Your task to perform on an android device: turn on notifications settings in the gmail app Image 0: 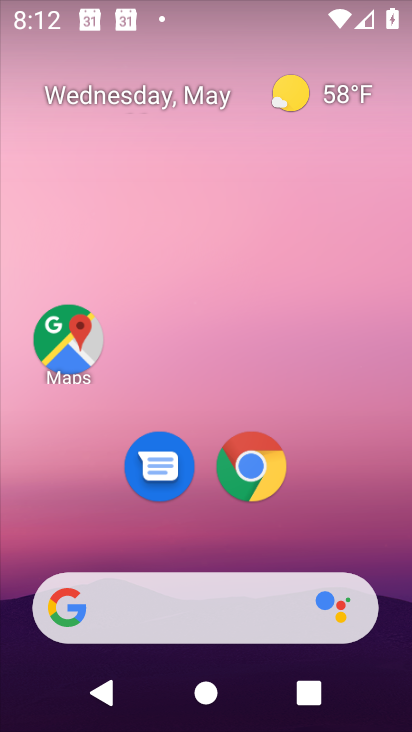
Step 0: drag from (200, 551) to (229, 24)
Your task to perform on an android device: turn on notifications settings in the gmail app Image 1: 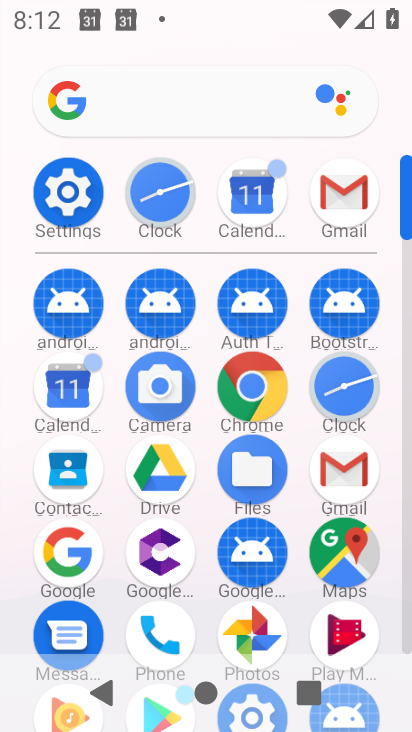
Step 1: click (344, 461)
Your task to perform on an android device: turn on notifications settings in the gmail app Image 2: 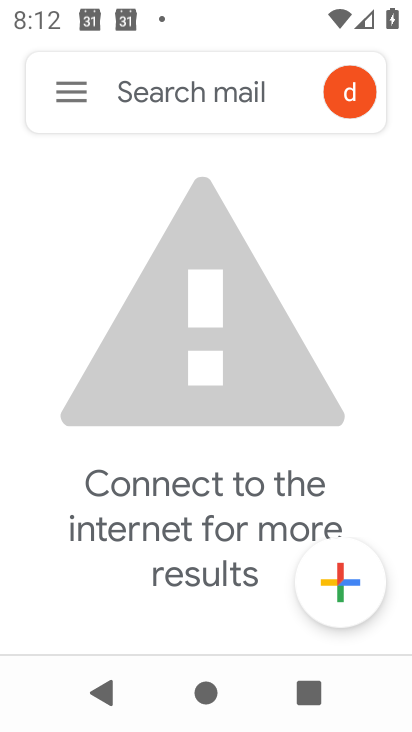
Step 2: click (68, 87)
Your task to perform on an android device: turn on notifications settings in the gmail app Image 3: 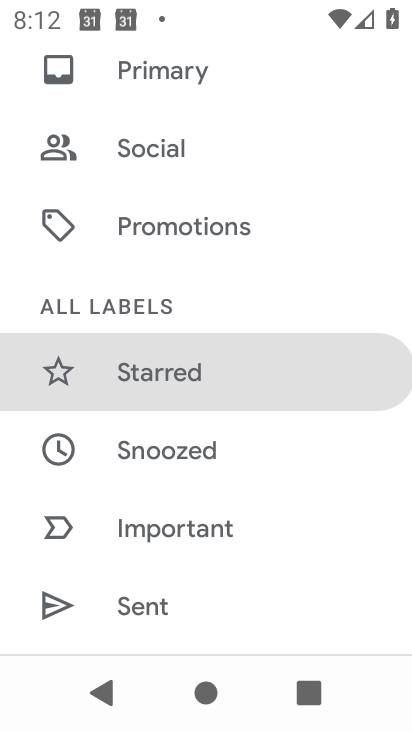
Step 3: drag from (165, 574) to (208, 50)
Your task to perform on an android device: turn on notifications settings in the gmail app Image 4: 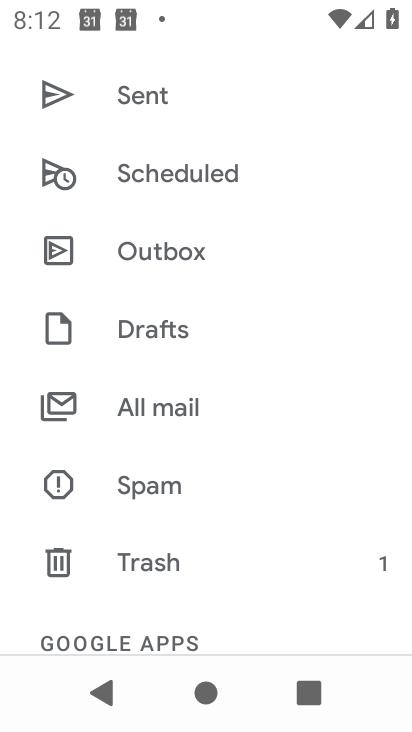
Step 4: drag from (162, 563) to (199, 100)
Your task to perform on an android device: turn on notifications settings in the gmail app Image 5: 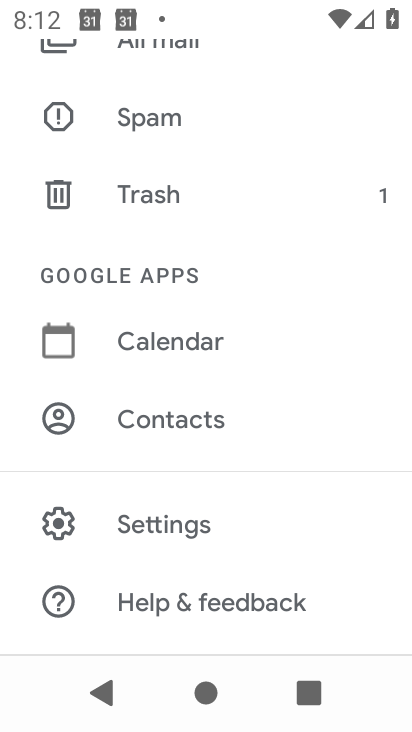
Step 5: click (168, 497)
Your task to perform on an android device: turn on notifications settings in the gmail app Image 6: 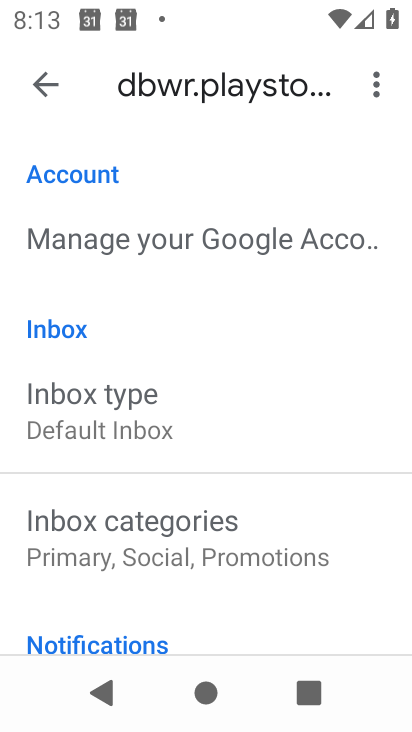
Step 6: click (36, 74)
Your task to perform on an android device: turn on notifications settings in the gmail app Image 7: 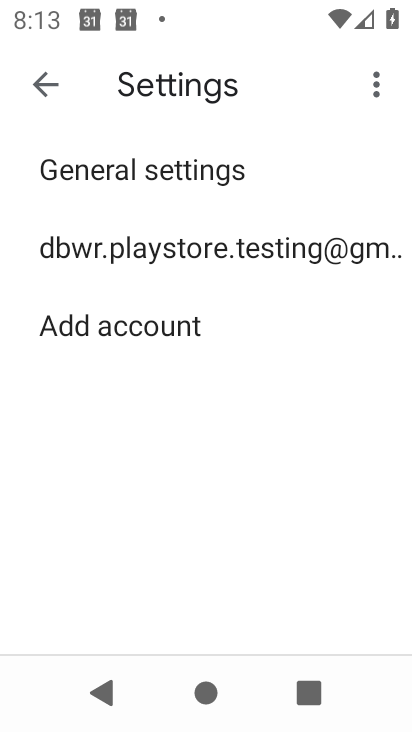
Step 7: click (139, 175)
Your task to perform on an android device: turn on notifications settings in the gmail app Image 8: 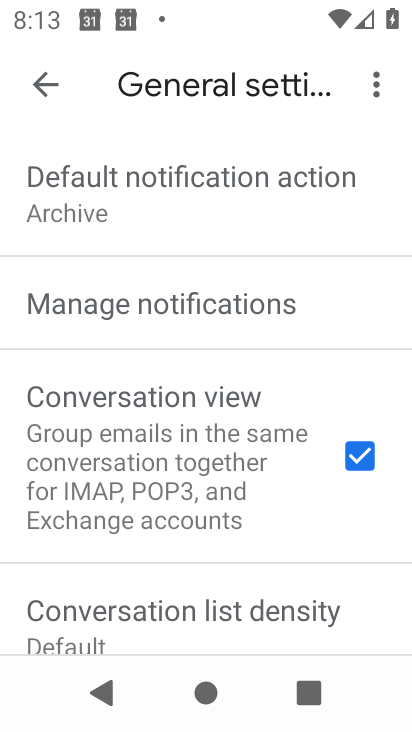
Step 8: click (199, 316)
Your task to perform on an android device: turn on notifications settings in the gmail app Image 9: 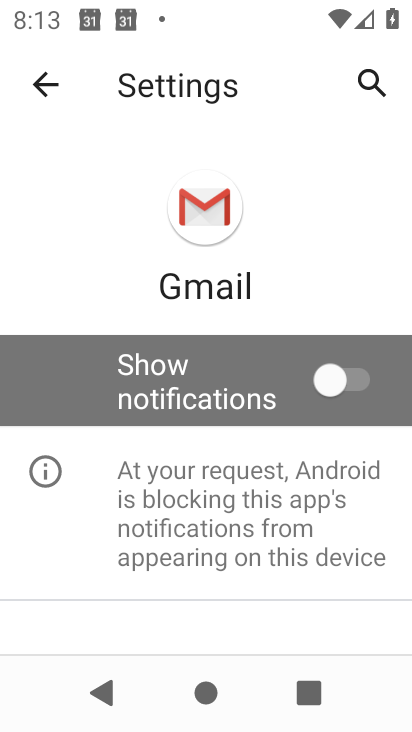
Step 9: click (343, 374)
Your task to perform on an android device: turn on notifications settings in the gmail app Image 10: 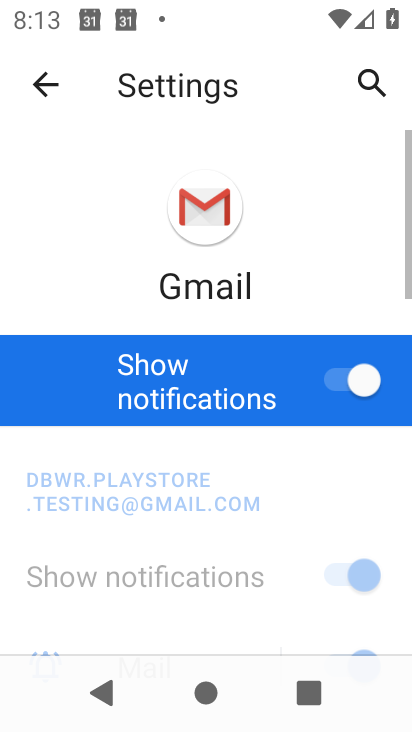
Step 10: task complete